Your task to perform on an android device: turn on the 24-hour format for clock Image 0: 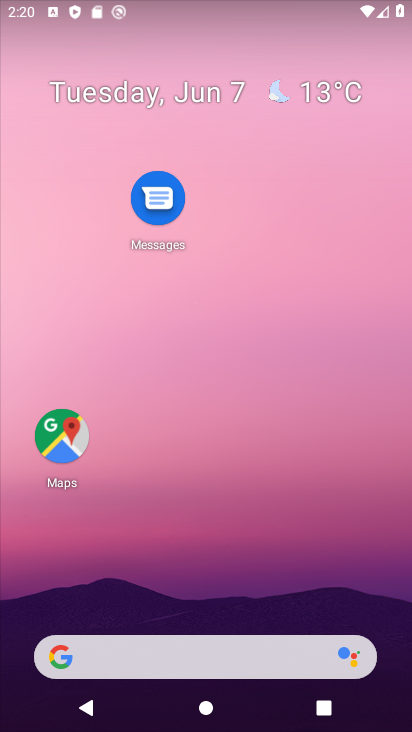
Step 0: drag from (237, 593) to (93, 89)
Your task to perform on an android device: turn on the 24-hour format for clock Image 1: 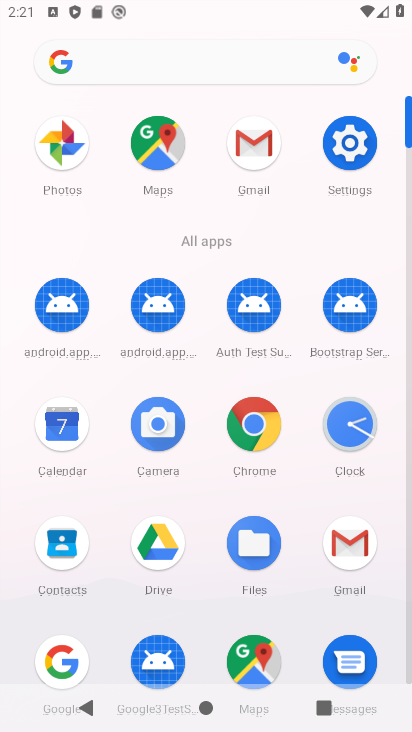
Step 1: click (347, 436)
Your task to perform on an android device: turn on the 24-hour format for clock Image 2: 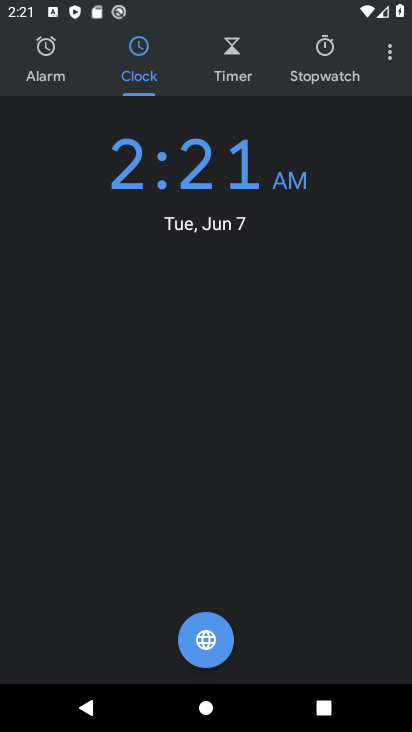
Step 2: click (385, 55)
Your task to perform on an android device: turn on the 24-hour format for clock Image 3: 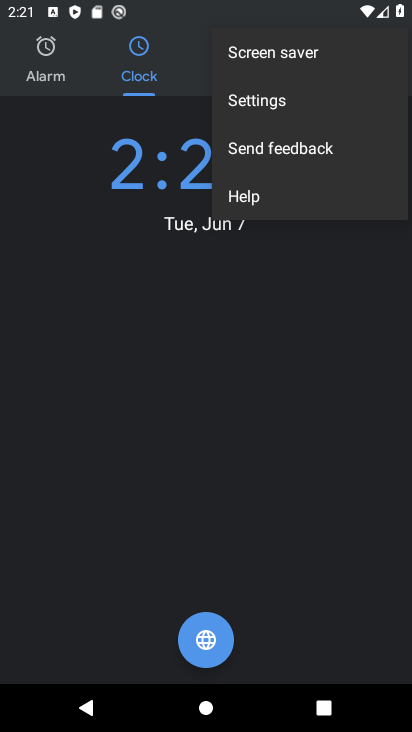
Step 3: click (248, 72)
Your task to perform on an android device: turn on the 24-hour format for clock Image 4: 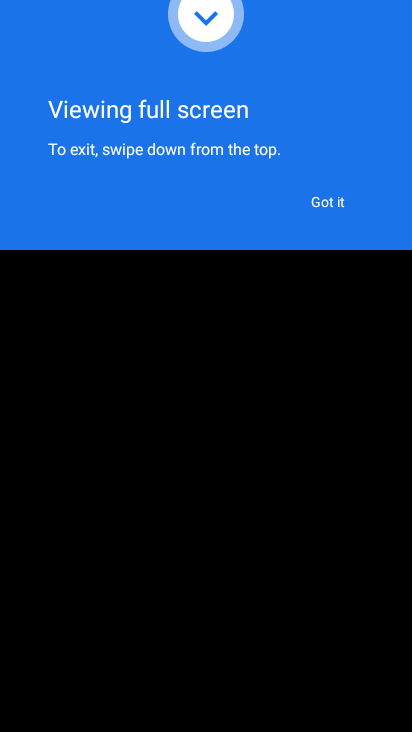
Step 4: click (332, 203)
Your task to perform on an android device: turn on the 24-hour format for clock Image 5: 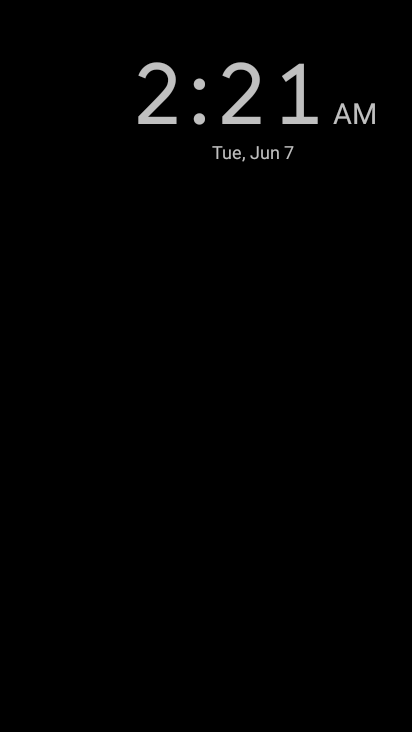
Step 5: click (249, 326)
Your task to perform on an android device: turn on the 24-hour format for clock Image 6: 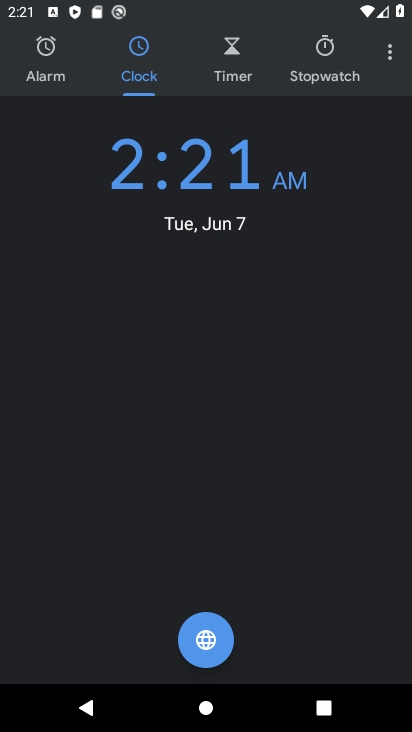
Step 6: click (391, 54)
Your task to perform on an android device: turn on the 24-hour format for clock Image 7: 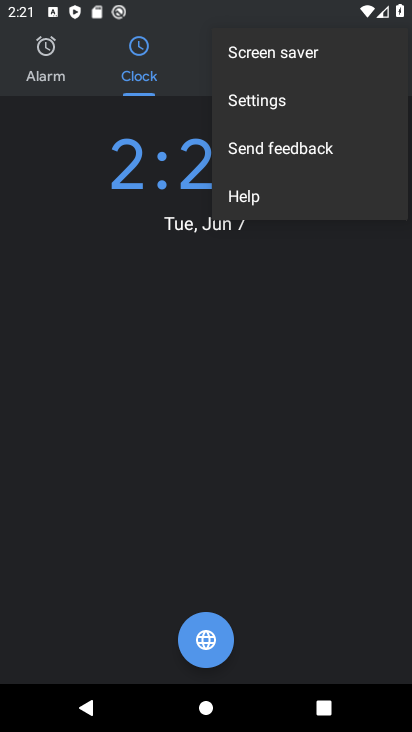
Step 7: click (297, 110)
Your task to perform on an android device: turn on the 24-hour format for clock Image 8: 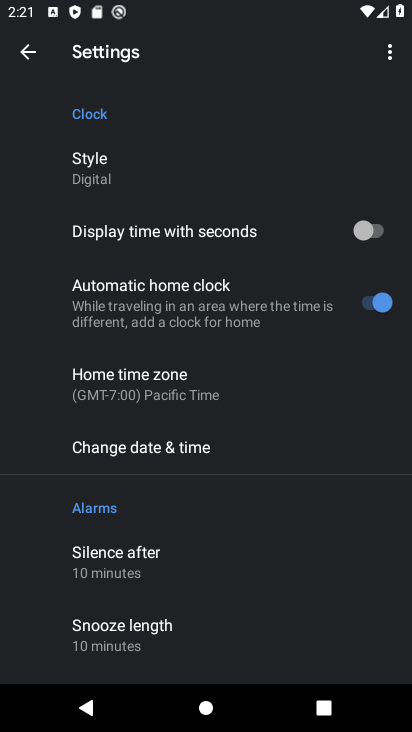
Step 8: drag from (181, 587) to (205, 248)
Your task to perform on an android device: turn on the 24-hour format for clock Image 9: 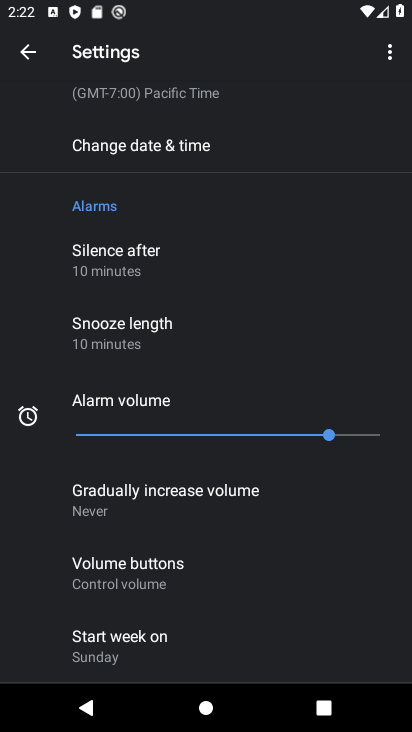
Step 9: click (195, 146)
Your task to perform on an android device: turn on the 24-hour format for clock Image 10: 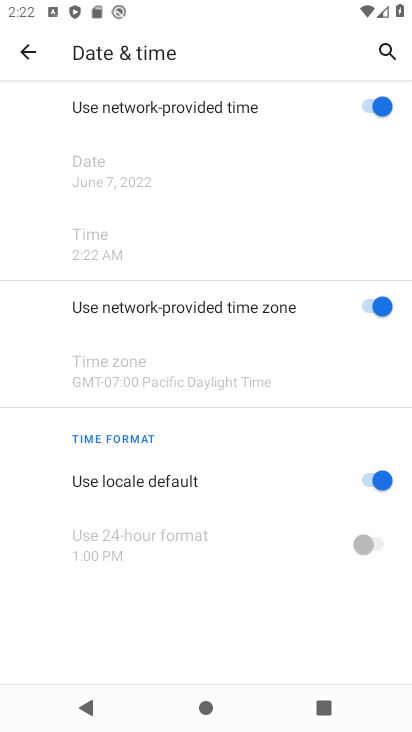
Step 10: click (365, 481)
Your task to perform on an android device: turn on the 24-hour format for clock Image 11: 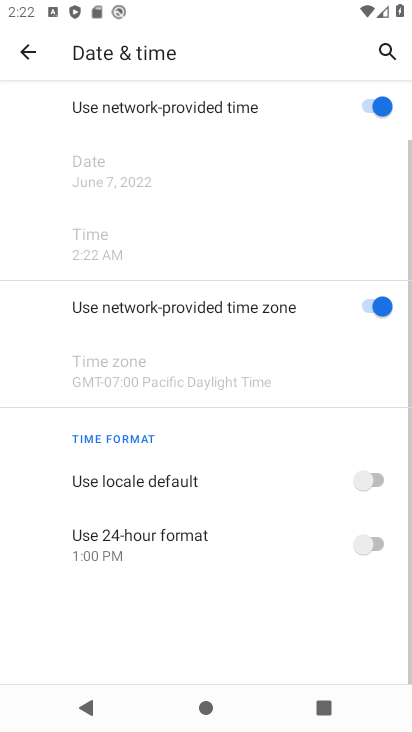
Step 11: click (389, 550)
Your task to perform on an android device: turn on the 24-hour format for clock Image 12: 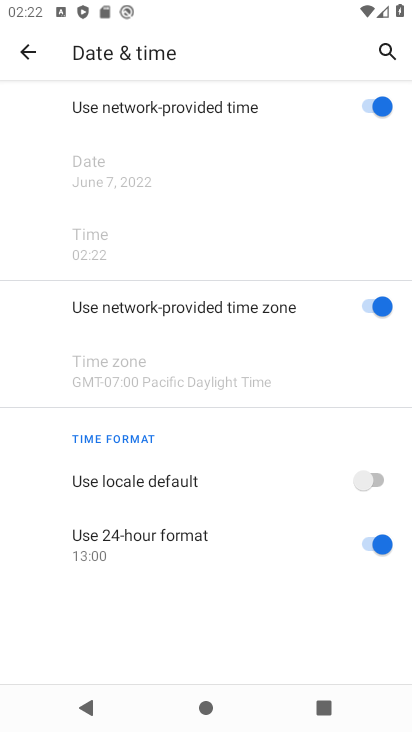
Step 12: task complete